Your task to perform on an android device: Check the news Image 0: 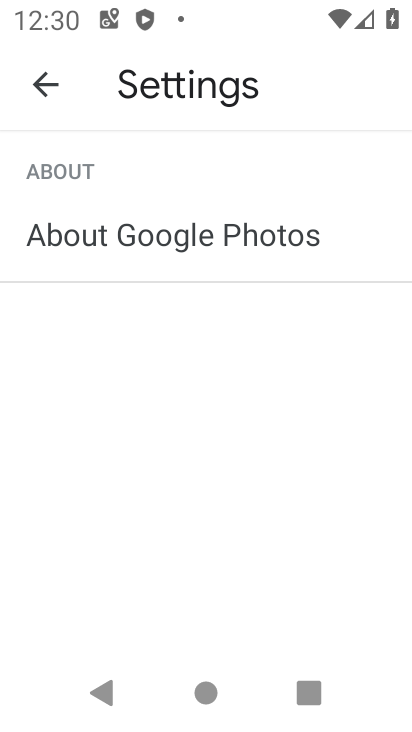
Step 0: press home button
Your task to perform on an android device: Check the news Image 1: 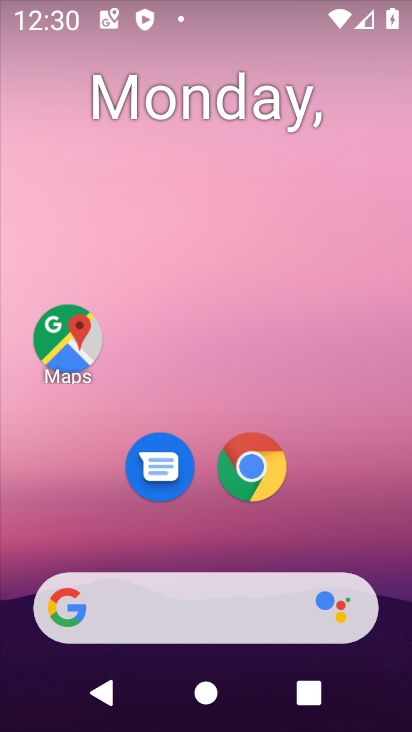
Step 1: task complete